Your task to perform on an android device: Go to Yahoo.com Image 0: 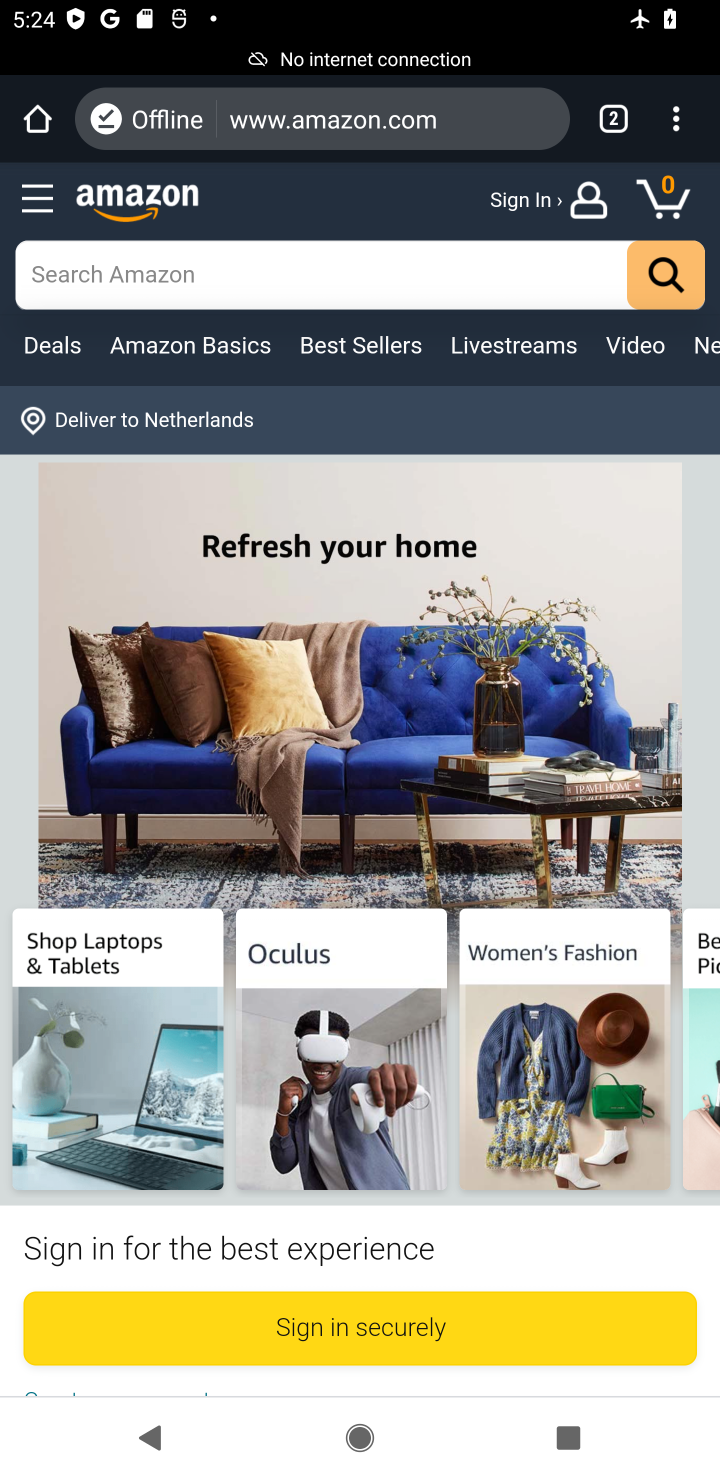
Step 0: drag from (356, 1263) to (286, 684)
Your task to perform on an android device: Go to Yahoo.com Image 1: 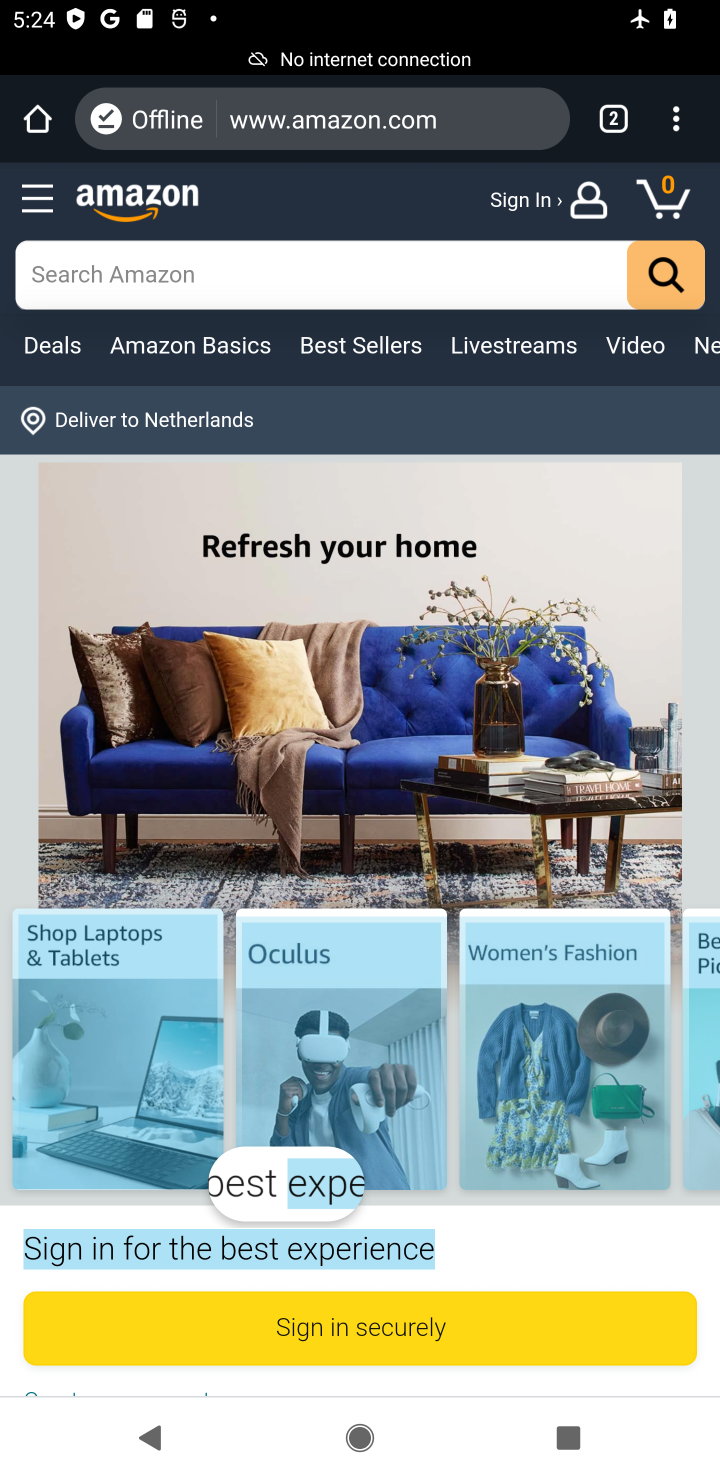
Step 1: click (609, 113)
Your task to perform on an android device: Go to Yahoo.com Image 2: 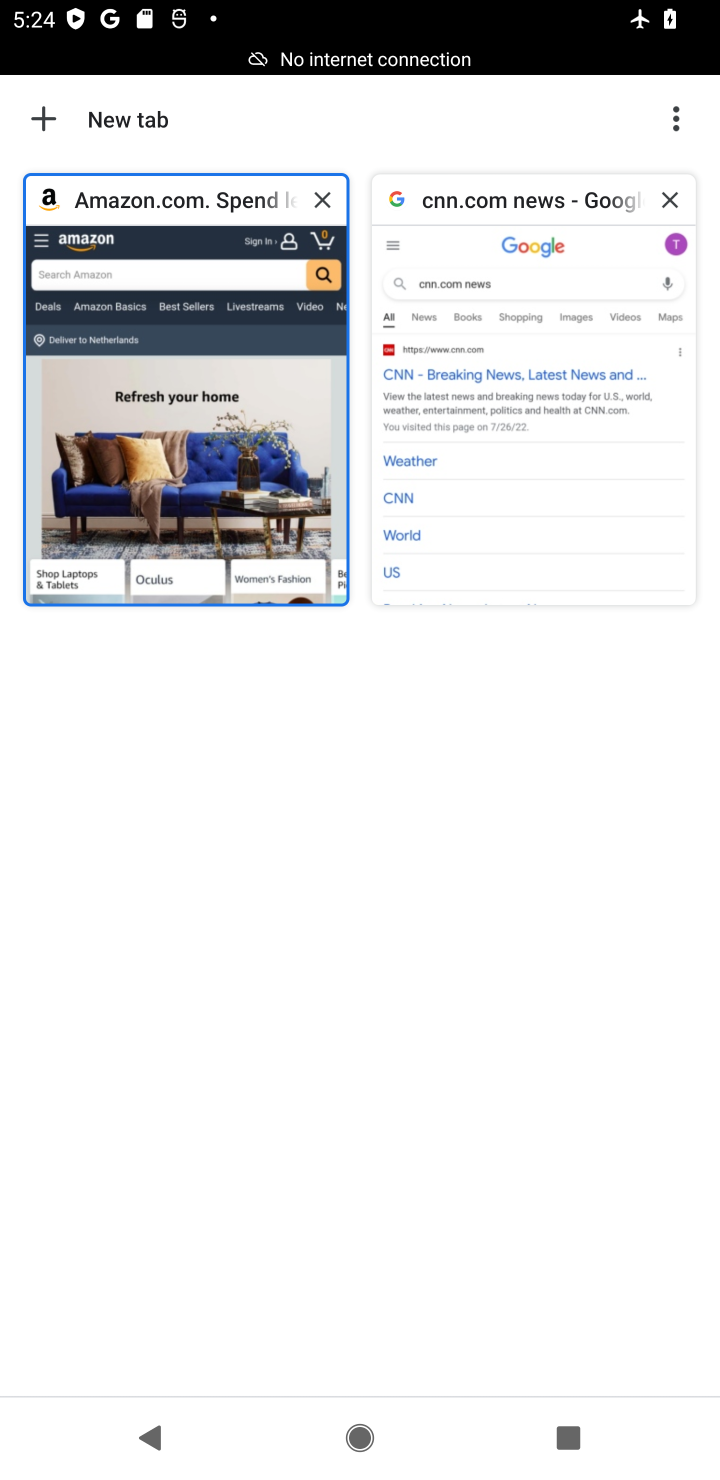
Step 2: click (50, 121)
Your task to perform on an android device: Go to Yahoo.com Image 3: 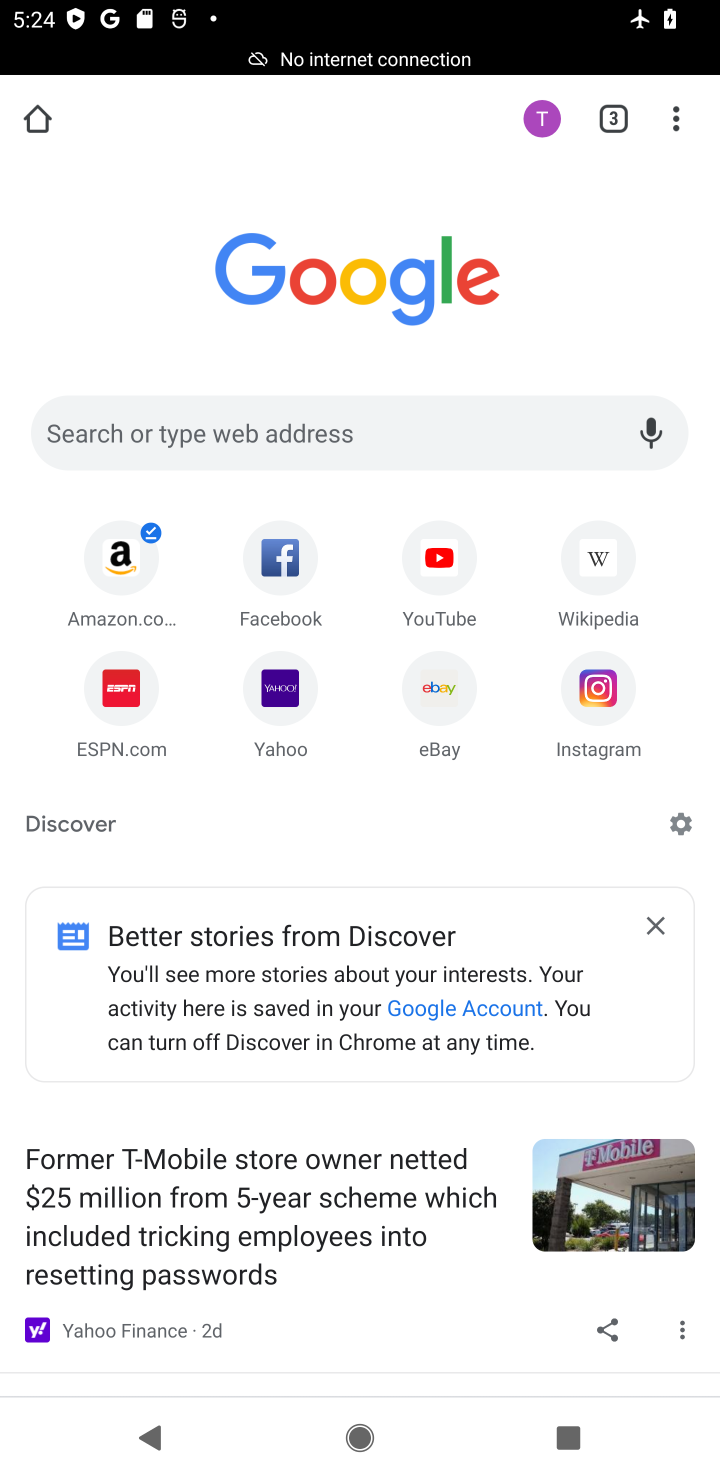
Step 3: click (273, 664)
Your task to perform on an android device: Go to Yahoo.com Image 4: 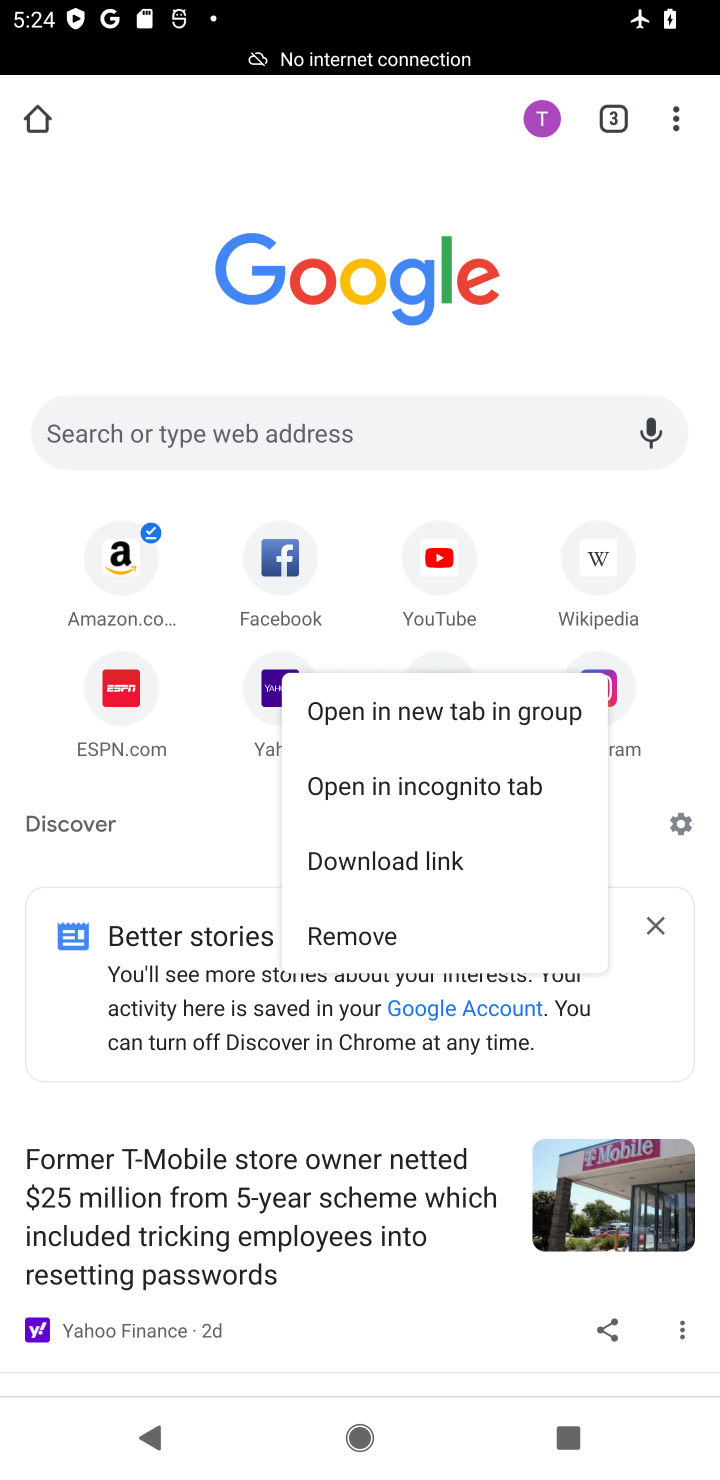
Step 4: click (271, 684)
Your task to perform on an android device: Go to Yahoo.com Image 5: 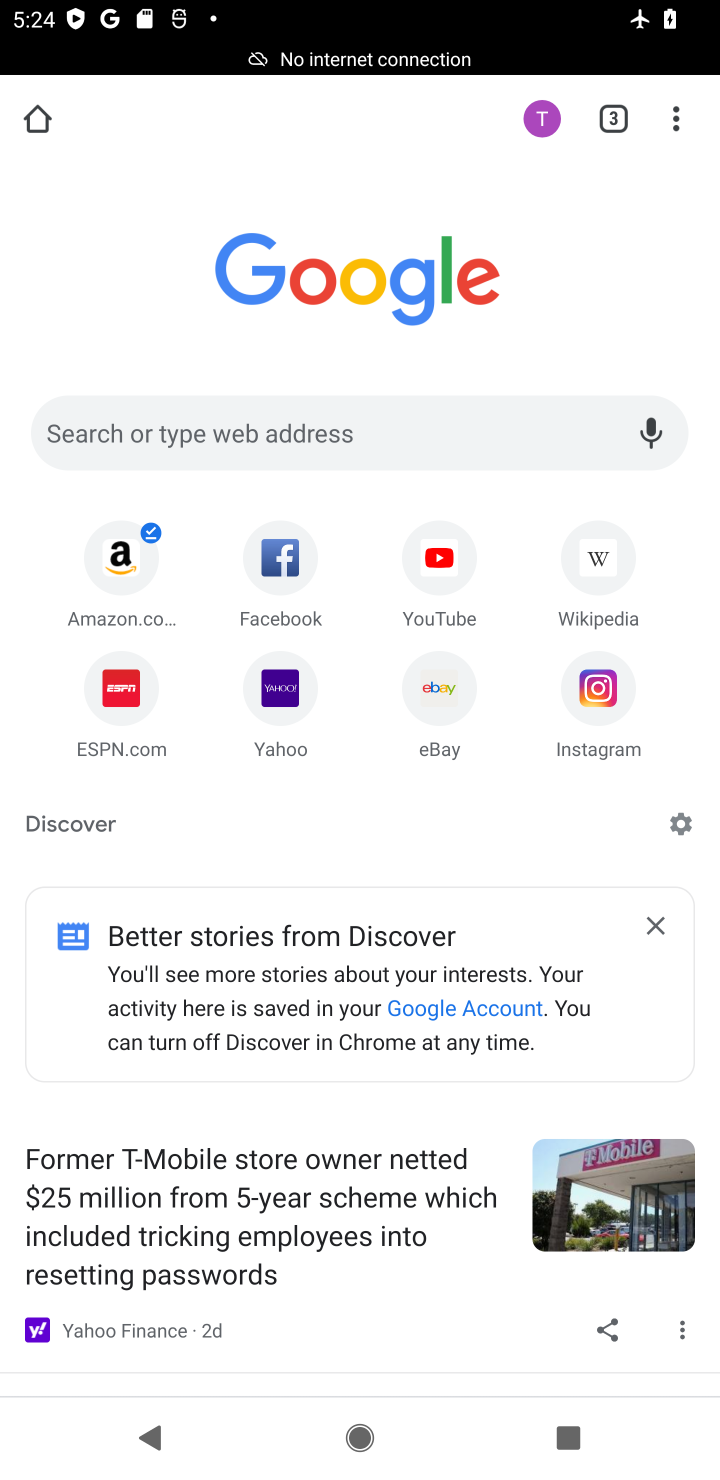
Step 5: click (270, 678)
Your task to perform on an android device: Go to Yahoo.com Image 6: 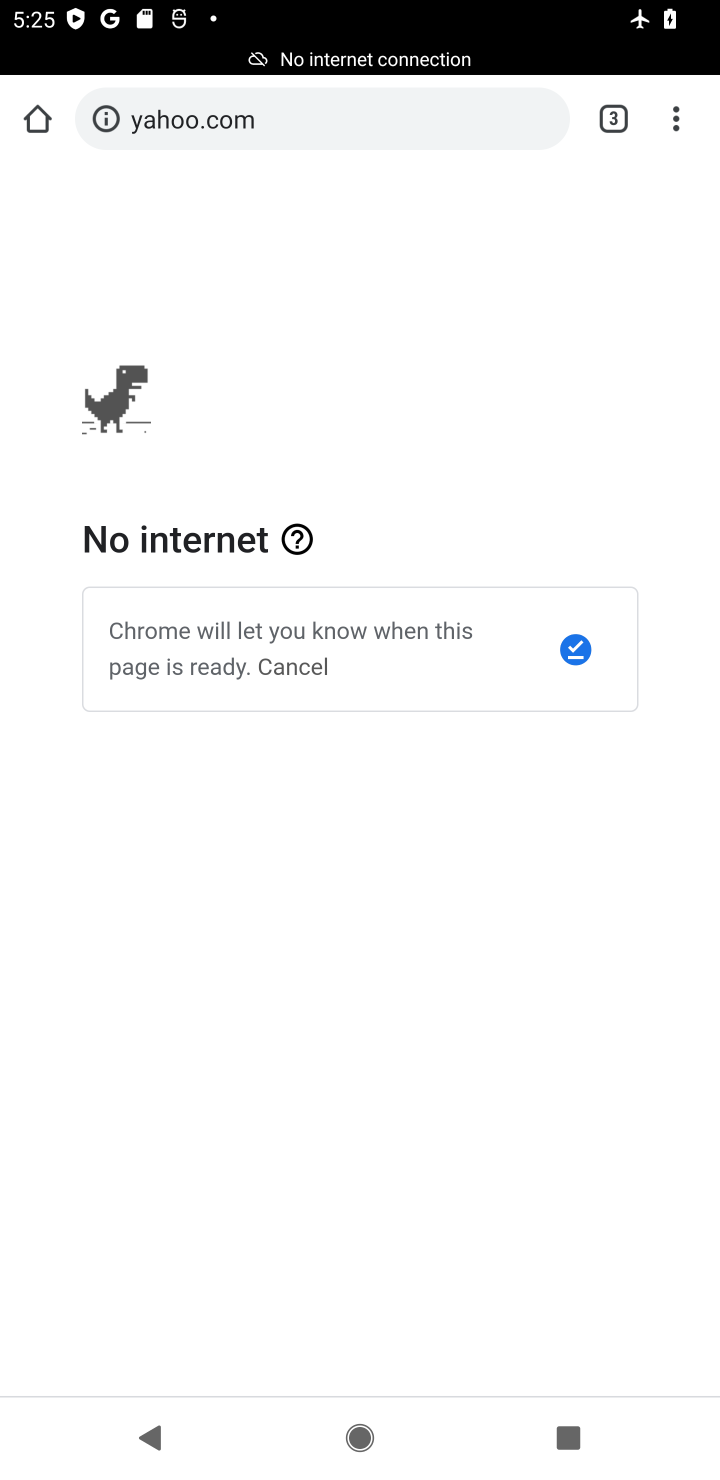
Step 6: task complete